Your task to perform on an android device: toggle improve location accuracy Image 0: 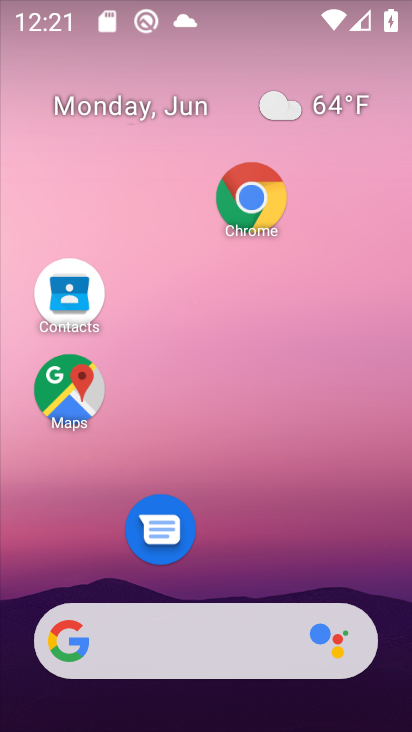
Step 0: drag from (308, 540) to (260, 6)
Your task to perform on an android device: toggle improve location accuracy Image 1: 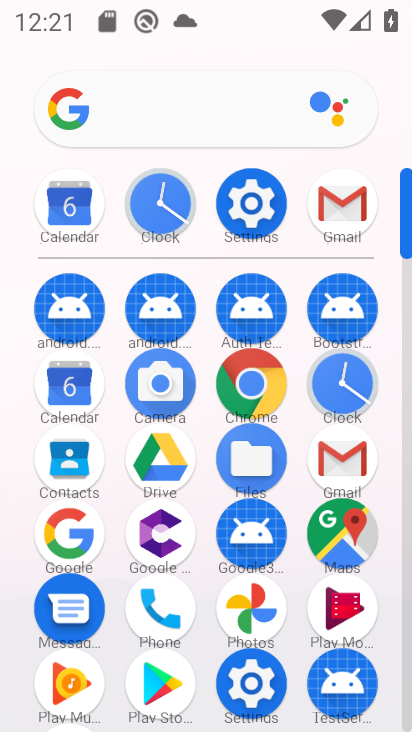
Step 1: click (246, 197)
Your task to perform on an android device: toggle improve location accuracy Image 2: 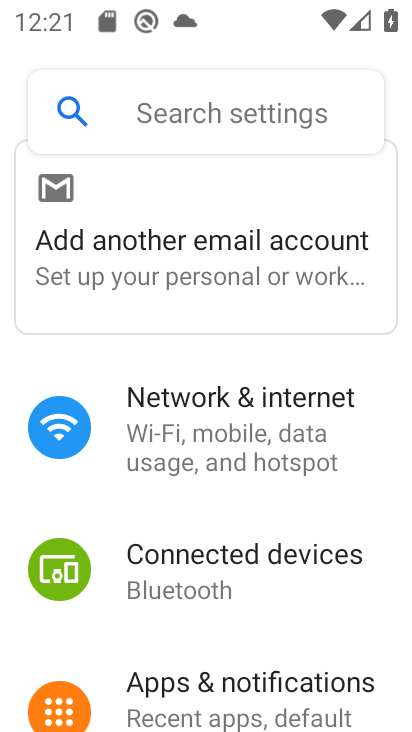
Step 2: drag from (237, 621) to (232, 219)
Your task to perform on an android device: toggle improve location accuracy Image 3: 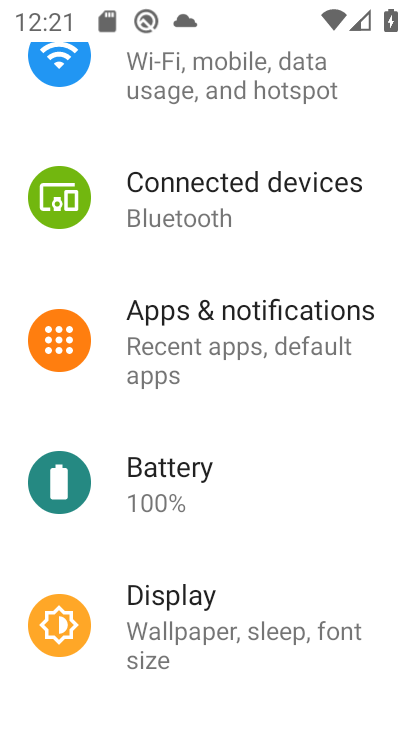
Step 3: drag from (270, 622) to (273, 275)
Your task to perform on an android device: toggle improve location accuracy Image 4: 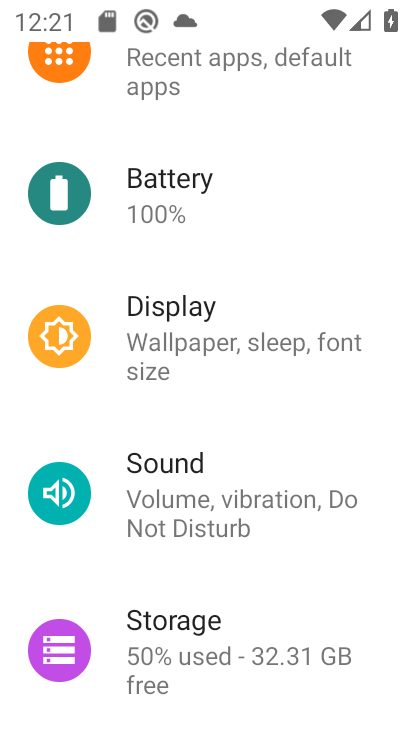
Step 4: drag from (236, 650) to (330, 261)
Your task to perform on an android device: toggle improve location accuracy Image 5: 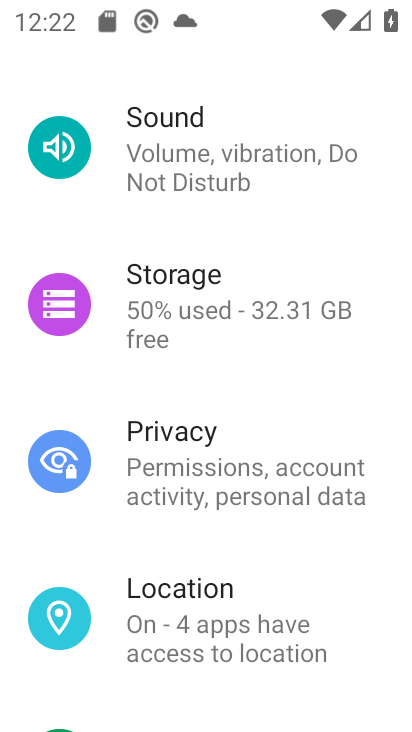
Step 5: click (253, 586)
Your task to perform on an android device: toggle improve location accuracy Image 6: 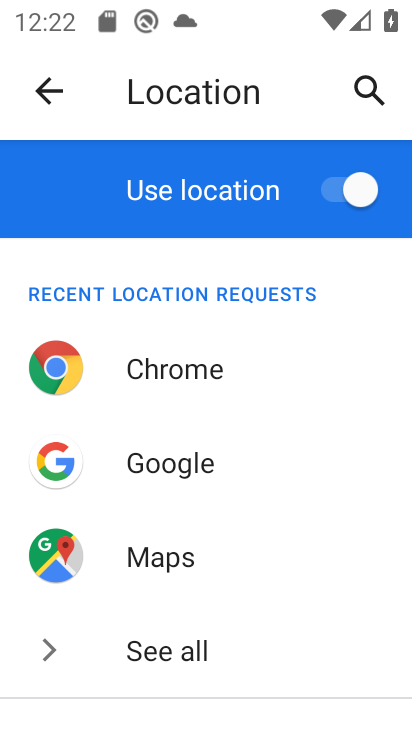
Step 6: drag from (212, 656) to (236, 172)
Your task to perform on an android device: toggle improve location accuracy Image 7: 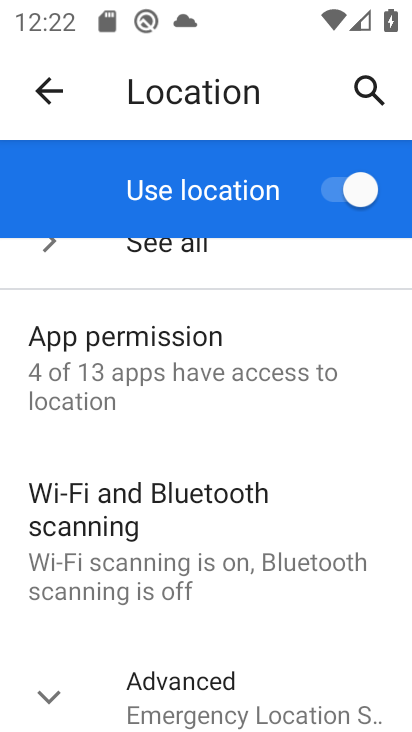
Step 7: click (195, 709)
Your task to perform on an android device: toggle improve location accuracy Image 8: 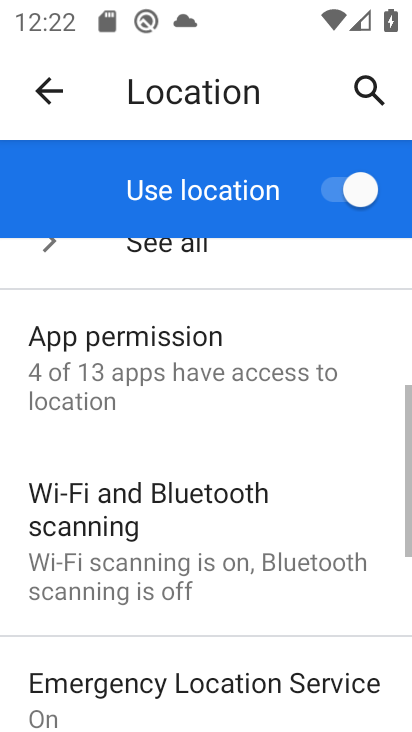
Step 8: drag from (193, 706) to (173, 228)
Your task to perform on an android device: toggle improve location accuracy Image 9: 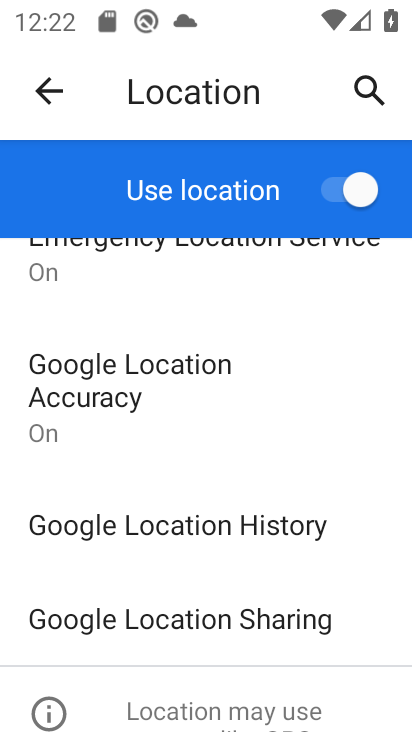
Step 9: click (136, 401)
Your task to perform on an android device: toggle improve location accuracy Image 10: 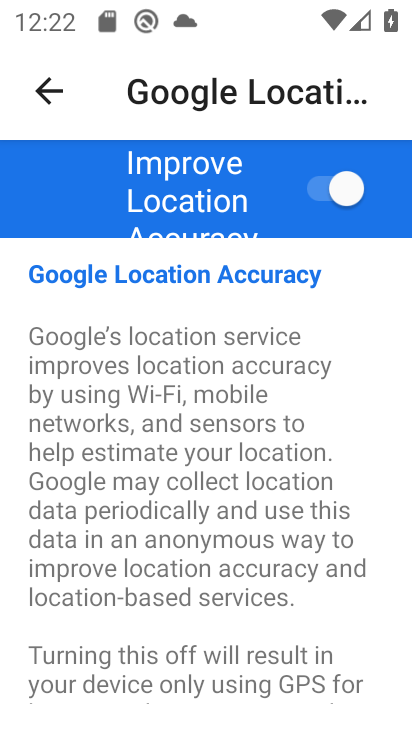
Step 10: click (339, 213)
Your task to perform on an android device: toggle improve location accuracy Image 11: 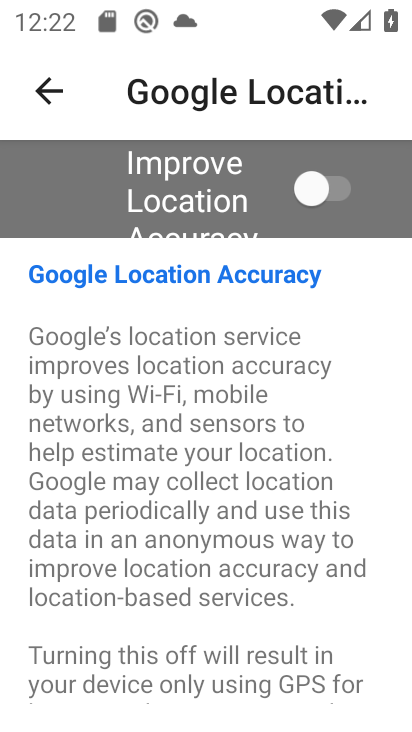
Step 11: task complete